Your task to perform on an android device: toggle data saver in the chrome app Image 0: 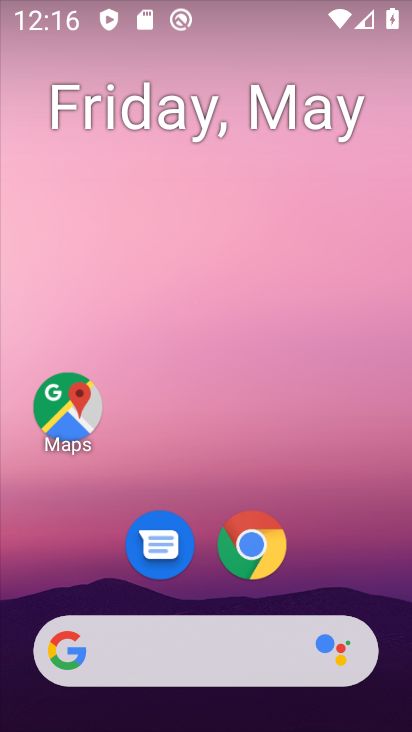
Step 0: click (243, 546)
Your task to perform on an android device: toggle data saver in the chrome app Image 1: 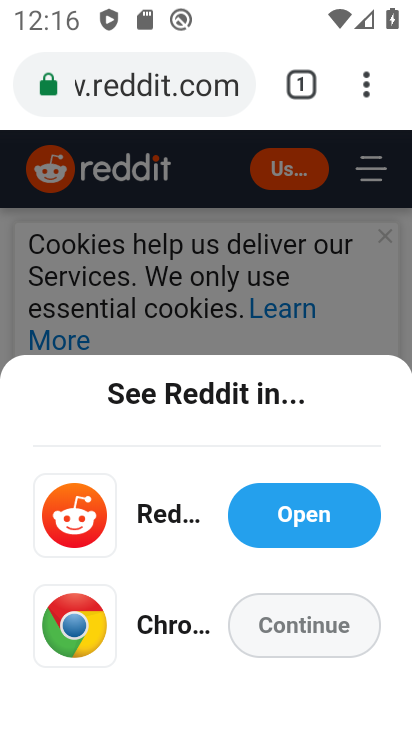
Step 1: click (261, 640)
Your task to perform on an android device: toggle data saver in the chrome app Image 2: 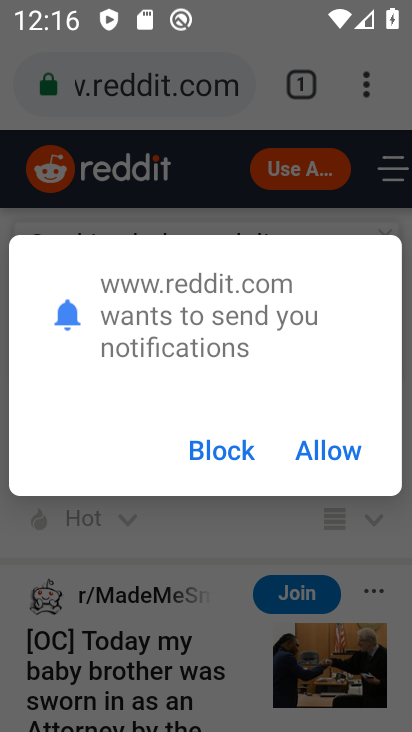
Step 2: click (369, 78)
Your task to perform on an android device: toggle data saver in the chrome app Image 3: 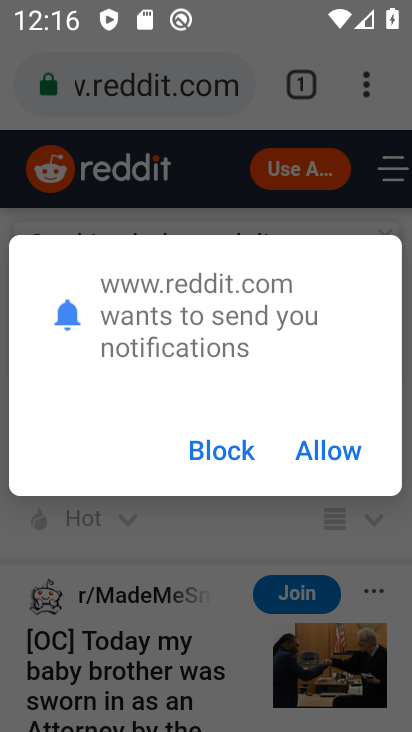
Step 3: click (208, 463)
Your task to perform on an android device: toggle data saver in the chrome app Image 4: 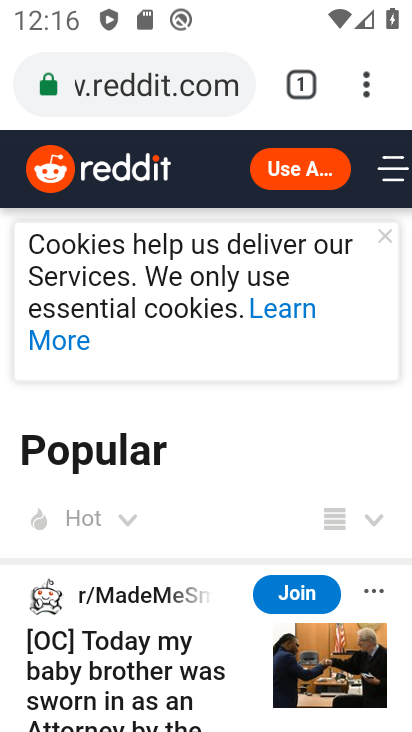
Step 4: click (359, 95)
Your task to perform on an android device: toggle data saver in the chrome app Image 5: 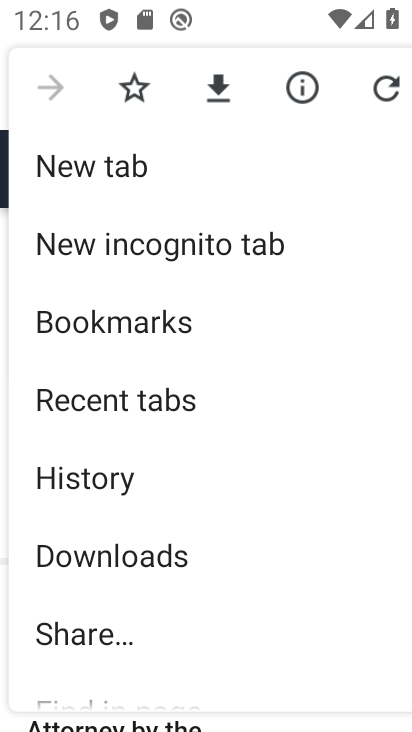
Step 5: drag from (185, 564) to (211, 200)
Your task to perform on an android device: toggle data saver in the chrome app Image 6: 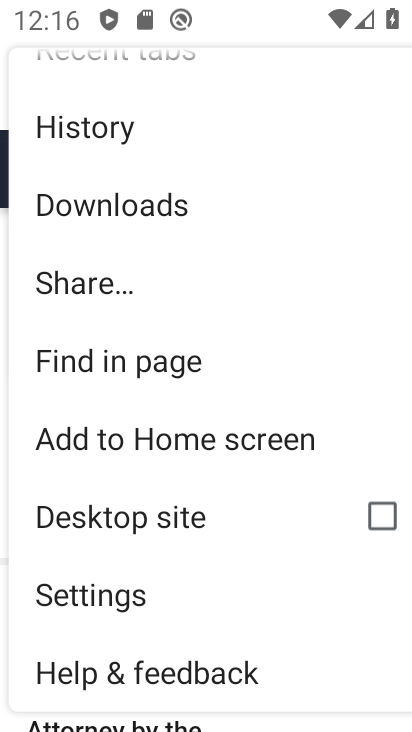
Step 6: click (115, 593)
Your task to perform on an android device: toggle data saver in the chrome app Image 7: 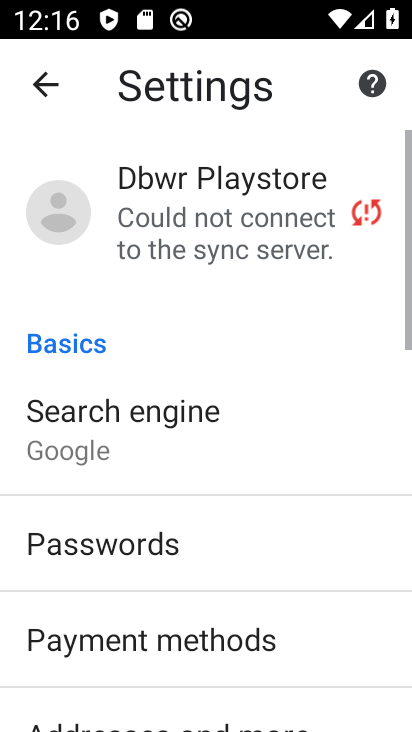
Step 7: drag from (174, 653) to (213, 294)
Your task to perform on an android device: toggle data saver in the chrome app Image 8: 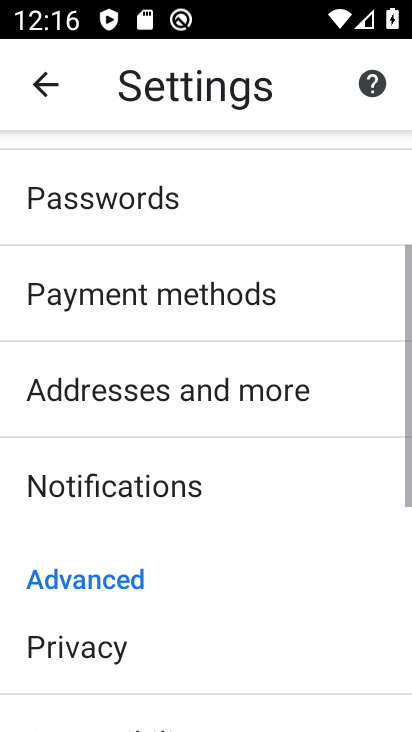
Step 8: drag from (201, 592) to (227, 305)
Your task to perform on an android device: toggle data saver in the chrome app Image 9: 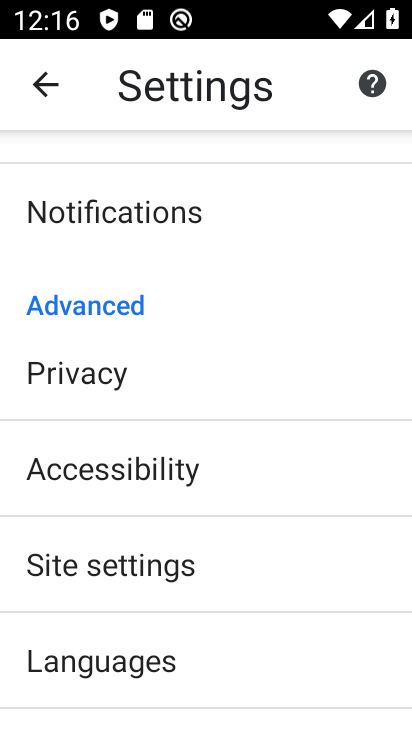
Step 9: drag from (199, 662) to (228, 384)
Your task to perform on an android device: toggle data saver in the chrome app Image 10: 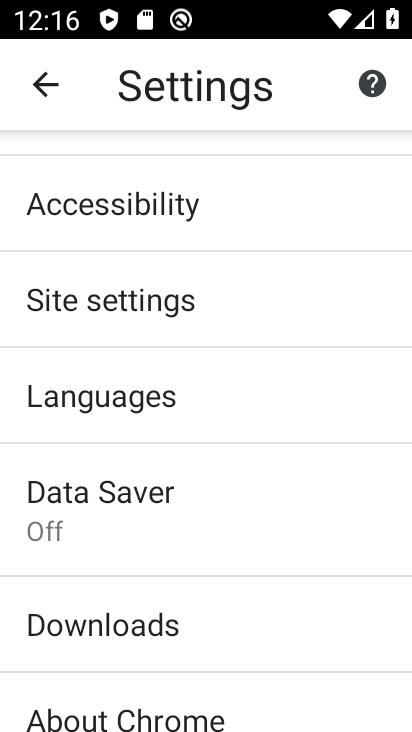
Step 10: click (64, 533)
Your task to perform on an android device: toggle data saver in the chrome app Image 11: 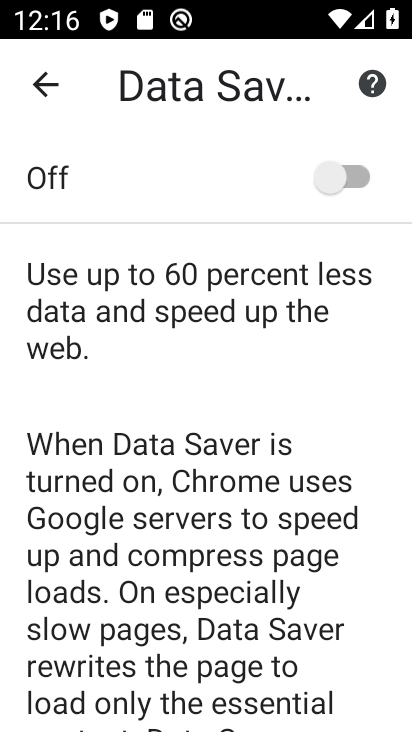
Step 11: click (371, 184)
Your task to perform on an android device: toggle data saver in the chrome app Image 12: 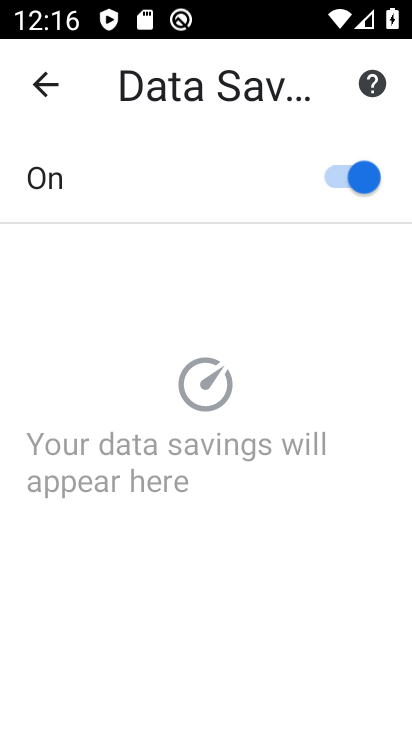
Step 12: task complete